Your task to perform on an android device: turn off airplane mode Image 0: 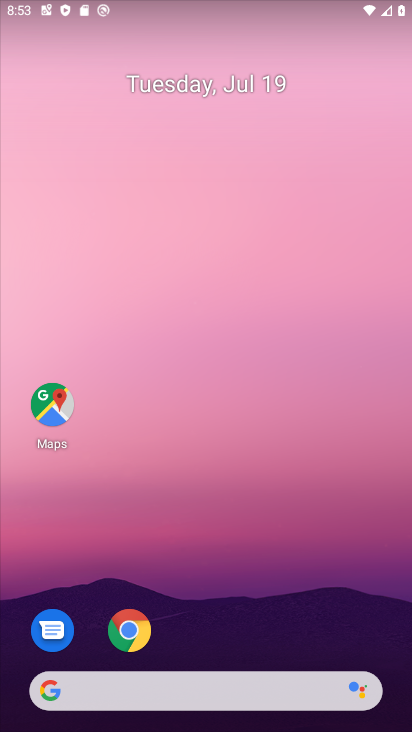
Step 0: drag from (210, 630) to (193, 72)
Your task to perform on an android device: turn off airplane mode Image 1: 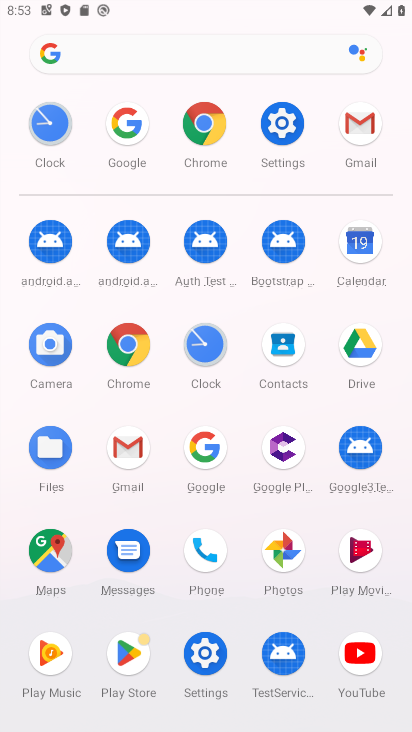
Step 1: click (285, 122)
Your task to perform on an android device: turn off airplane mode Image 2: 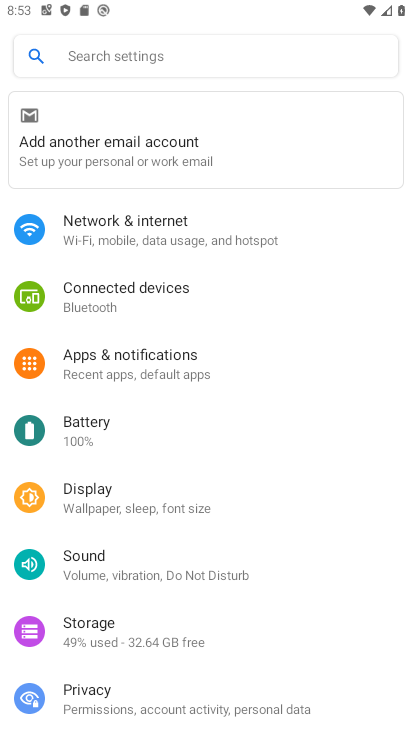
Step 2: click (148, 234)
Your task to perform on an android device: turn off airplane mode Image 3: 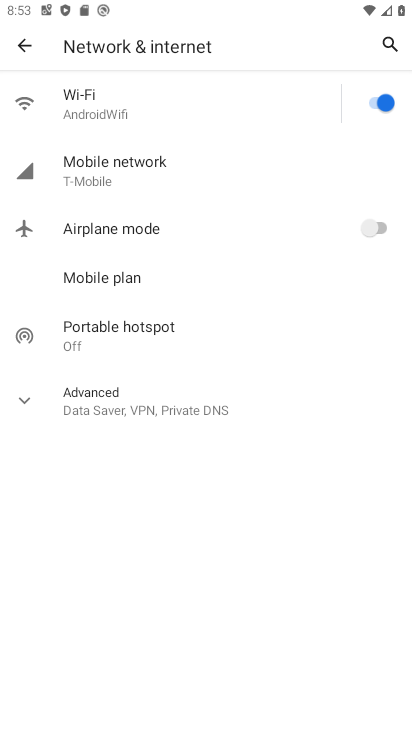
Step 3: task complete